Your task to perform on an android device: turn on wifi Image 0: 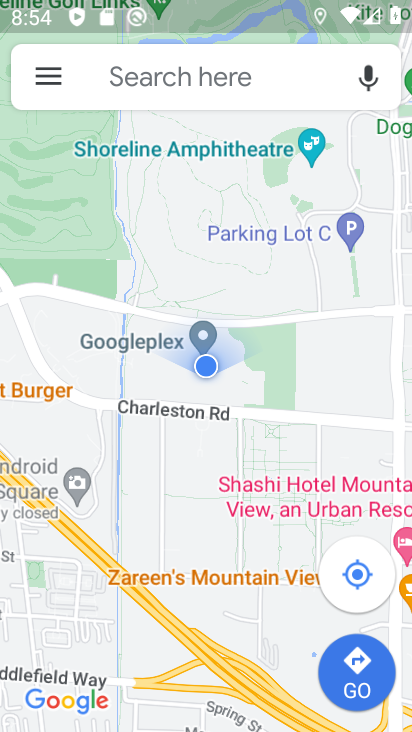
Step 0: press home button
Your task to perform on an android device: turn on wifi Image 1: 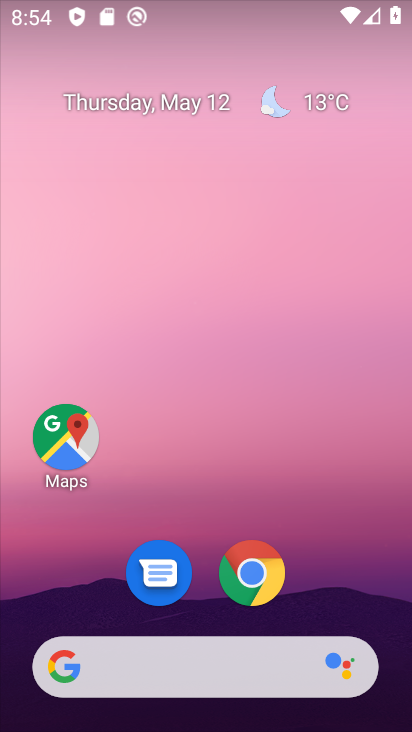
Step 1: drag from (390, 416) to (375, 261)
Your task to perform on an android device: turn on wifi Image 2: 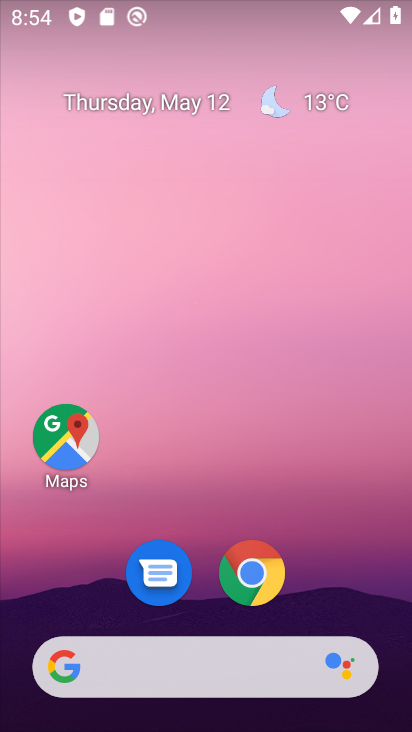
Step 2: drag from (396, 672) to (355, 208)
Your task to perform on an android device: turn on wifi Image 3: 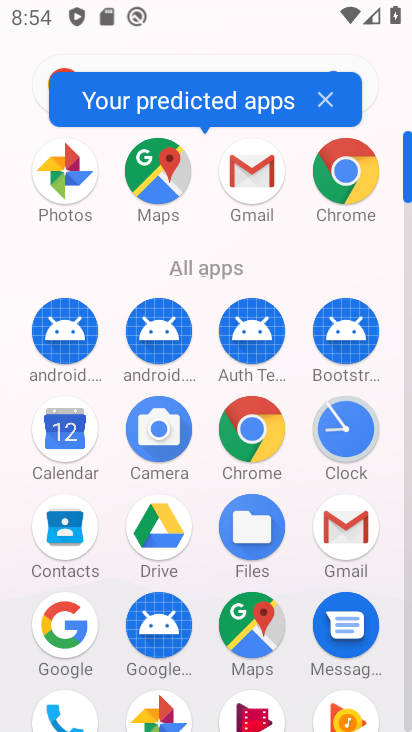
Step 3: drag from (410, 141) to (406, 74)
Your task to perform on an android device: turn on wifi Image 4: 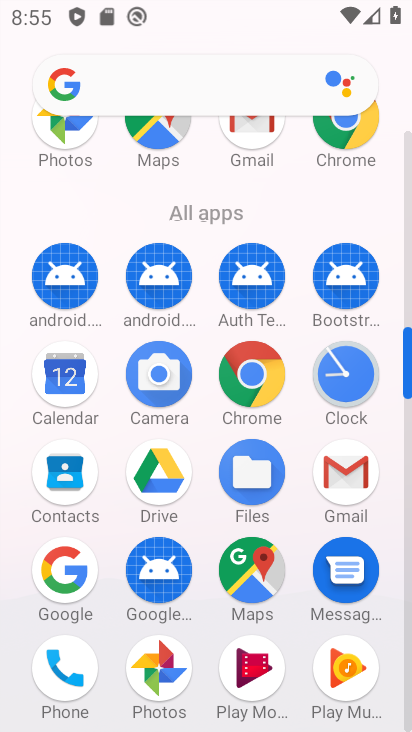
Step 4: drag from (405, 282) to (399, 198)
Your task to perform on an android device: turn on wifi Image 5: 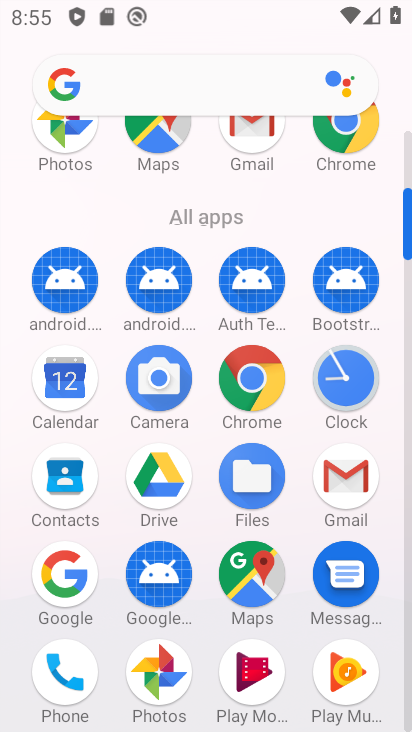
Step 5: click (410, 190)
Your task to perform on an android device: turn on wifi Image 6: 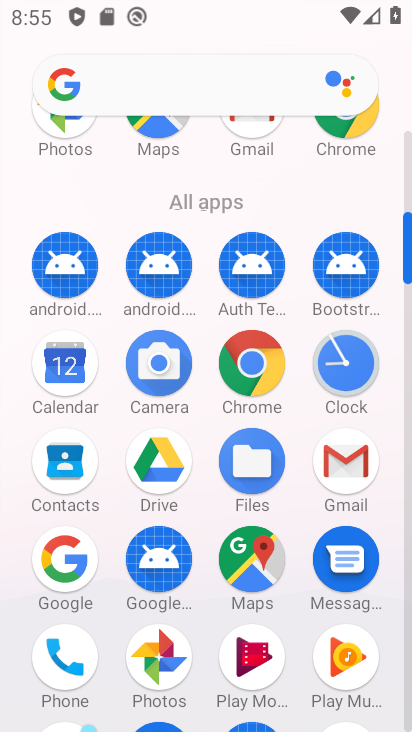
Step 6: drag from (408, 196) to (411, 133)
Your task to perform on an android device: turn on wifi Image 7: 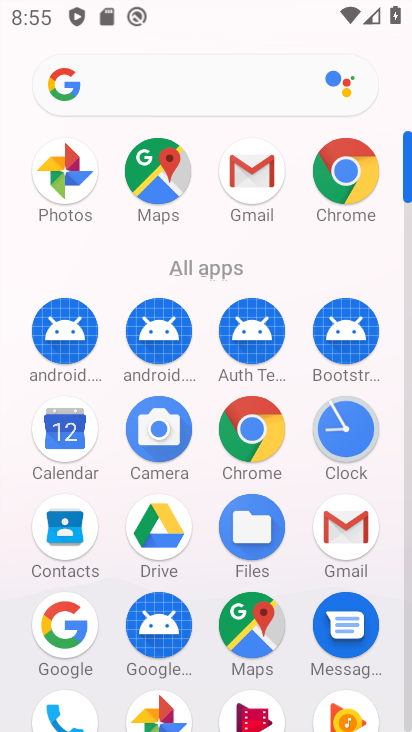
Step 7: drag from (410, 155) to (403, 52)
Your task to perform on an android device: turn on wifi Image 8: 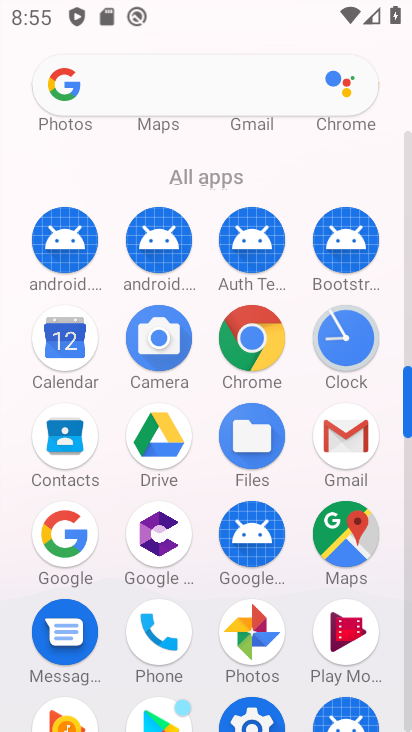
Step 8: click (231, 717)
Your task to perform on an android device: turn on wifi Image 9: 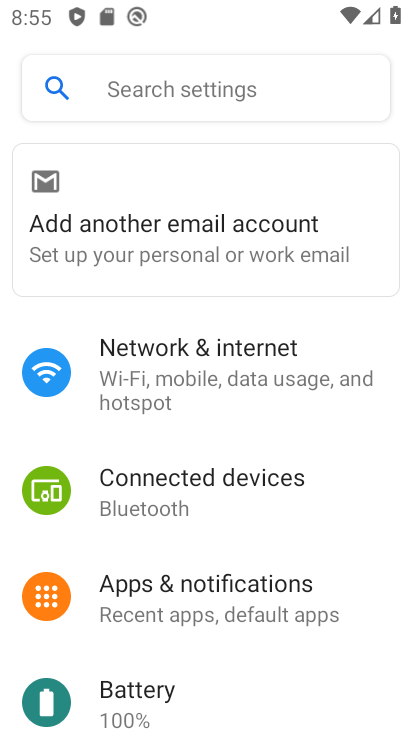
Step 9: click (159, 353)
Your task to perform on an android device: turn on wifi Image 10: 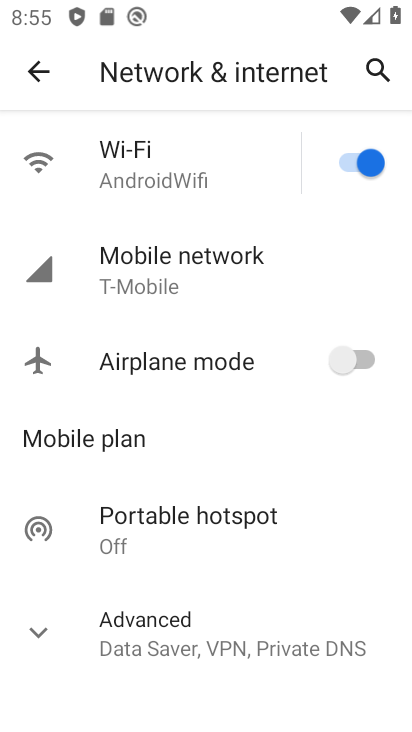
Step 10: task complete